Your task to perform on an android device: Open accessibility settings Image 0: 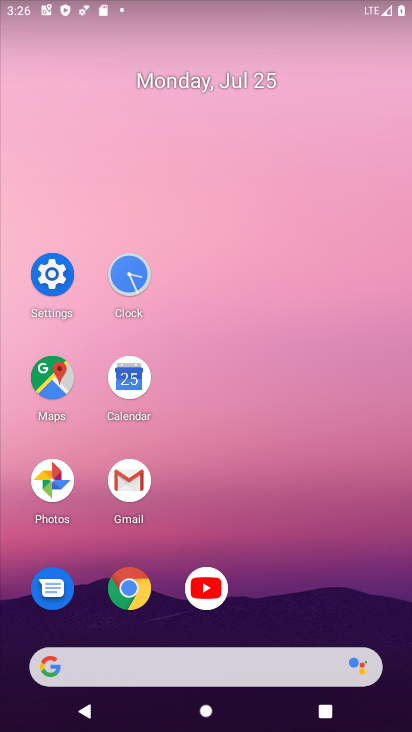
Step 0: click (51, 271)
Your task to perform on an android device: Open accessibility settings Image 1: 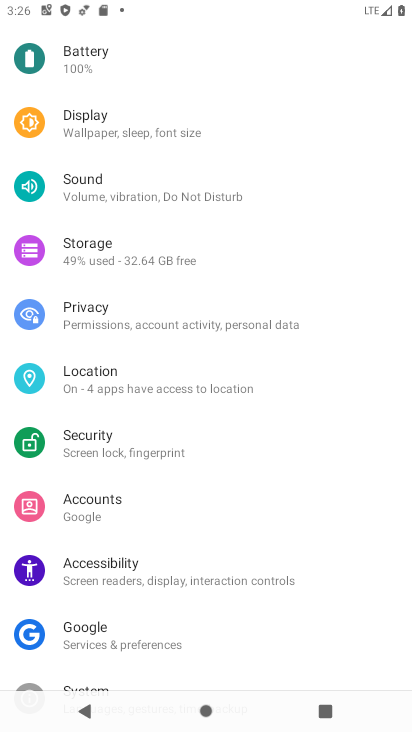
Step 1: click (103, 560)
Your task to perform on an android device: Open accessibility settings Image 2: 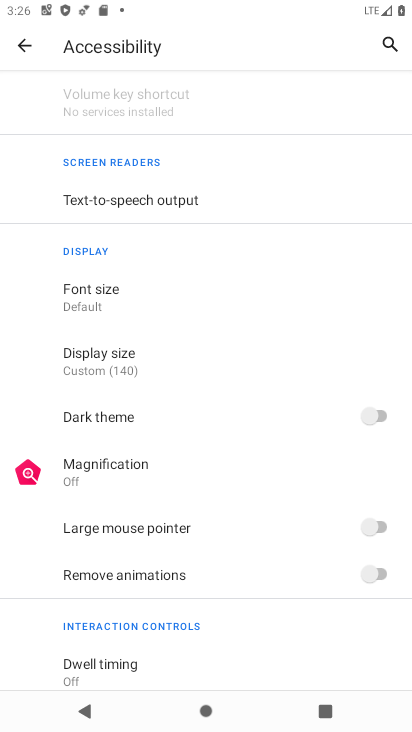
Step 2: task complete